Your task to perform on an android device: turn on wifi Image 0: 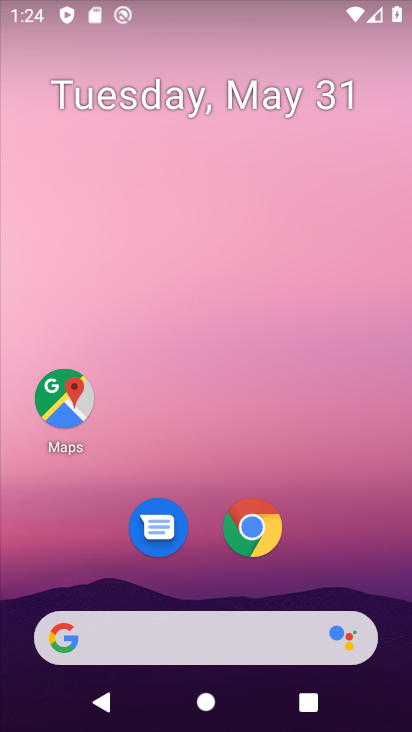
Step 0: drag from (360, 539) to (286, 86)
Your task to perform on an android device: turn on wifi Image 1: 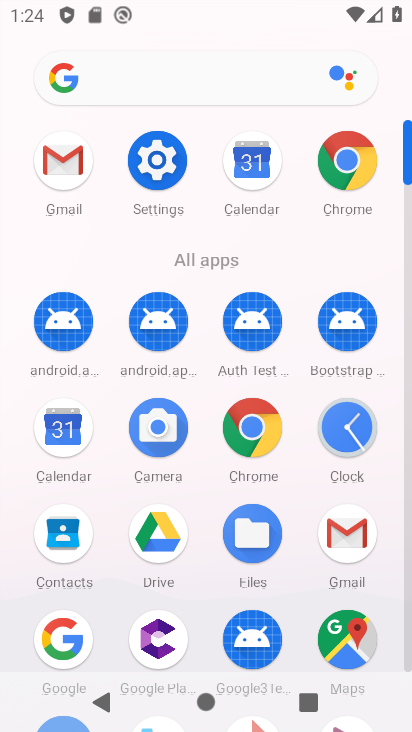
Step 1: click (166, 162)
Your task to perform on an android device: turn on wifi Image 2: 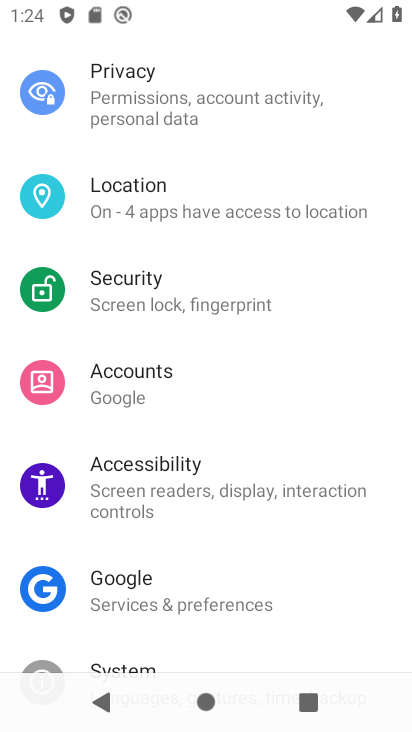
Step 2: drag from (220, 169) to (259, 526)
Your task to perform on an android device: turn on wifi Image 3: 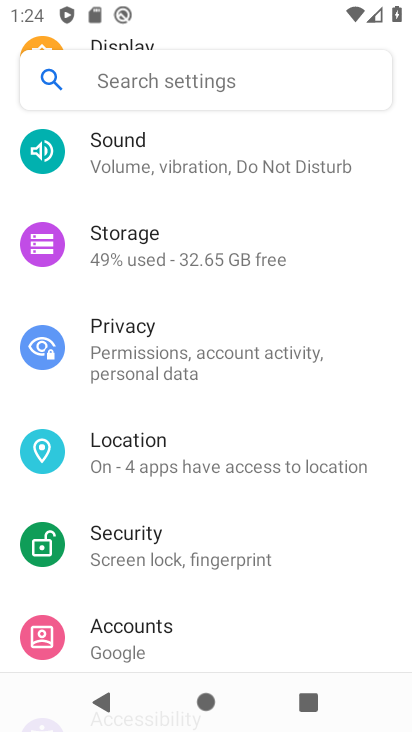
Step 3: drag from (212, 296) to (217, 526)
Your task to perform on an android device: turn on wifi Image 4: 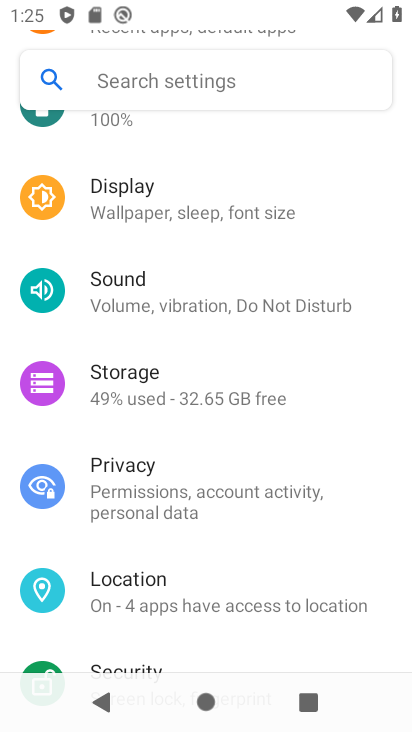
Step 4: drag from (203, 167) to (217, 581)
Your task to perform on an android device: turn on wifi Image 5: 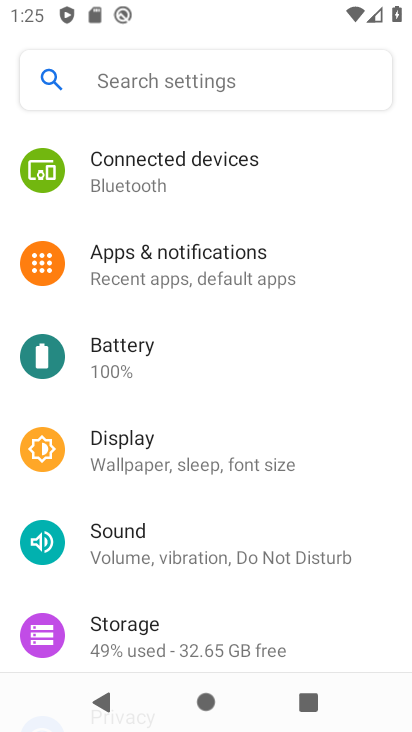
Step 5: drag from (203, 175) to (224, 605)
Your task to perform on an android device: turn on wifi Image 6: 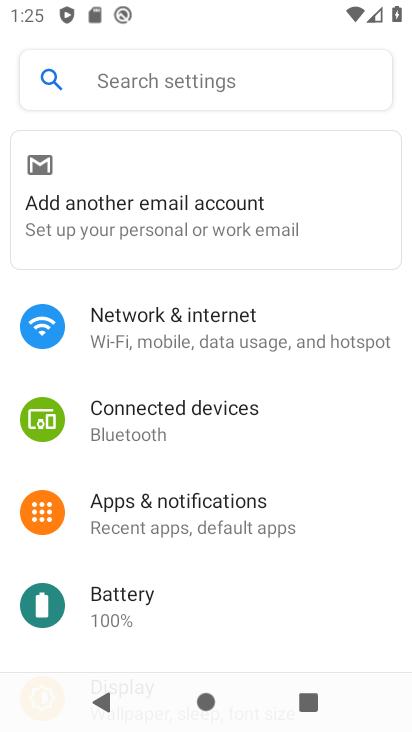
Step 6: click (142, 309)
Your task to perform on an android device: turn on wifi Image 7: 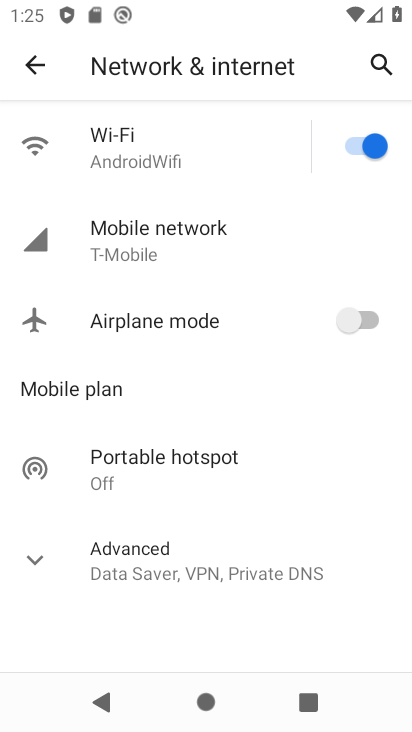
Step 7: task complete